Your task to perform on an android device: Go to Yahoo.com Image 0: 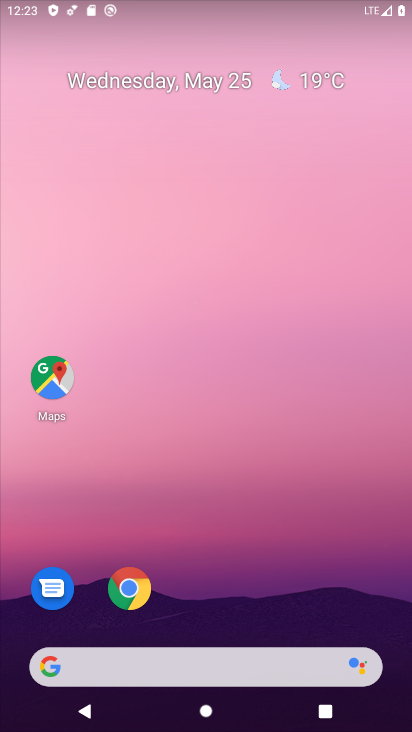
Step 0: click (129, 599)
Your task to perform on an android device: Go to Yahoo.com Image 1: 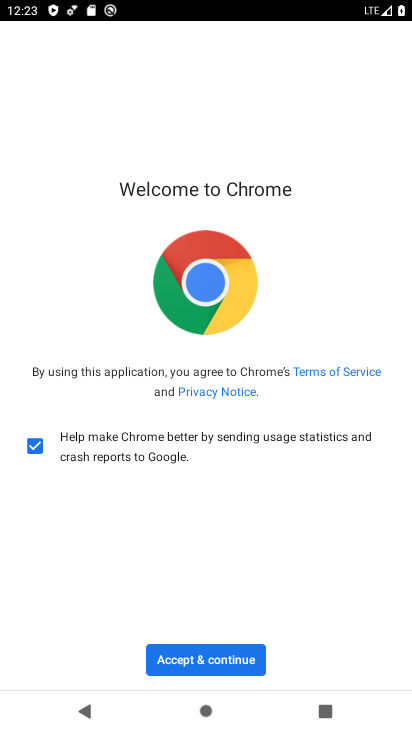
Step 1: click (243, 670)
Your task to perform on an android device: Go to Yahoo.com Image 2: 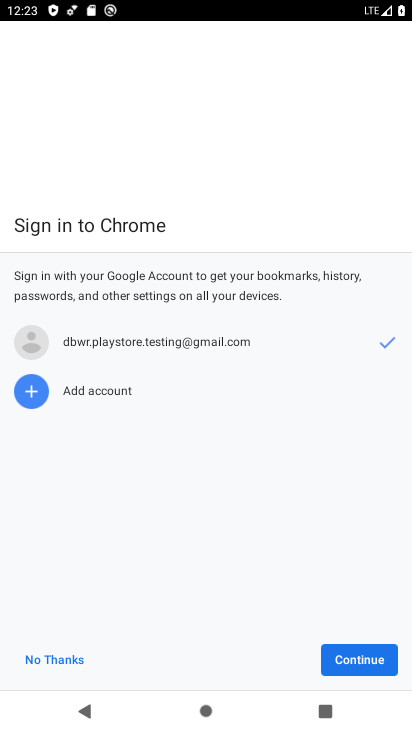
Step 2: click (379, 665)
Your task to perform on an android device: Go to Yahoo.com Image 3: 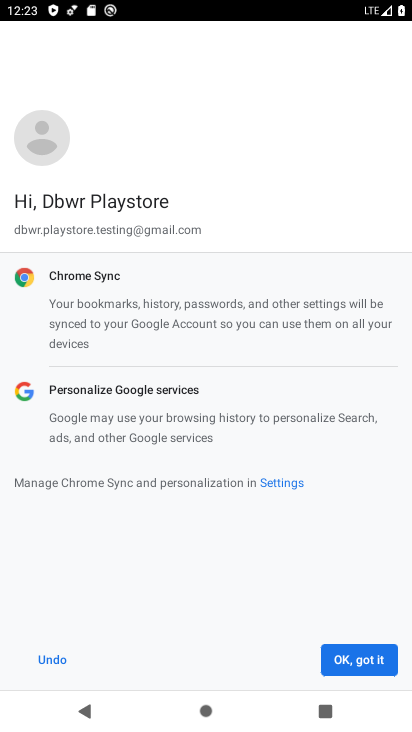
Step 3: click (377, 664)
Your task to perform on an android device: Go to Yahoo.com Image 4: 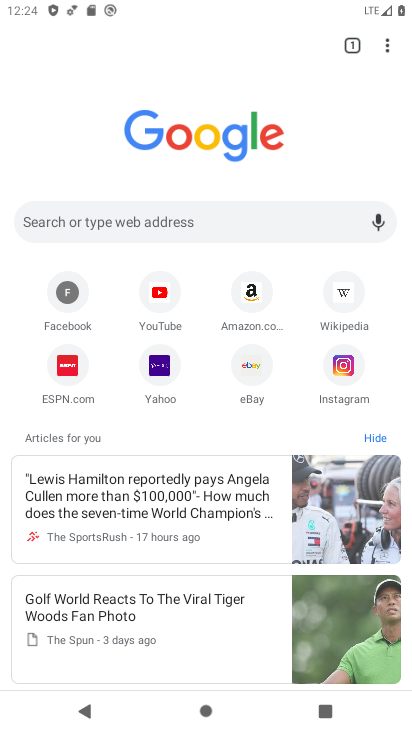
Step 4: click (160, 372)
Your task to perform on an android device: Go to Yahoo.com Image 5: 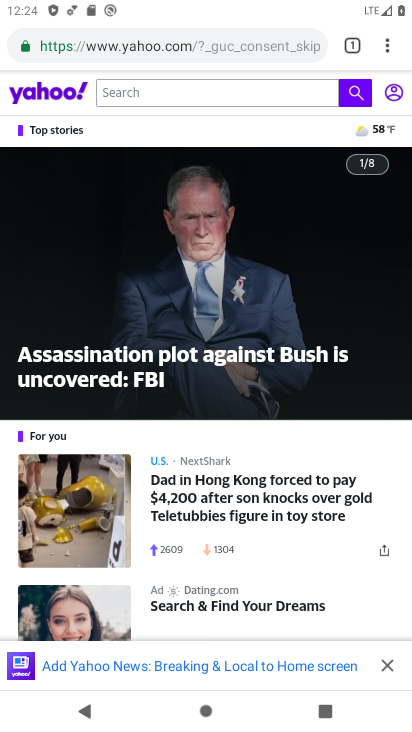
Step 5: task complete